Your task to perform on an android device: Check the weather Image 0: 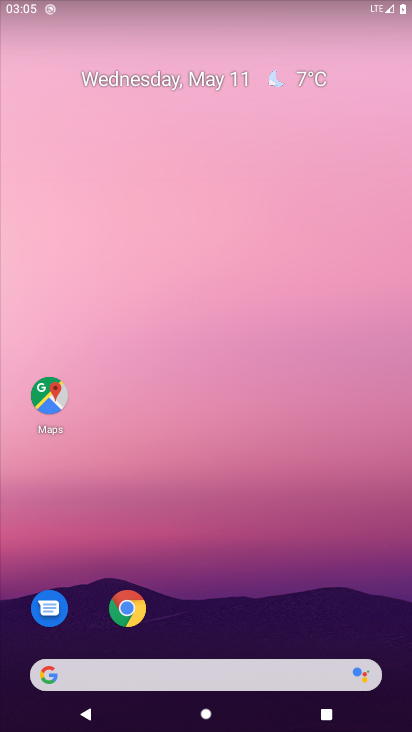
Step 0: press home button
Your task to perform on an android device: Check the weather Image 1: 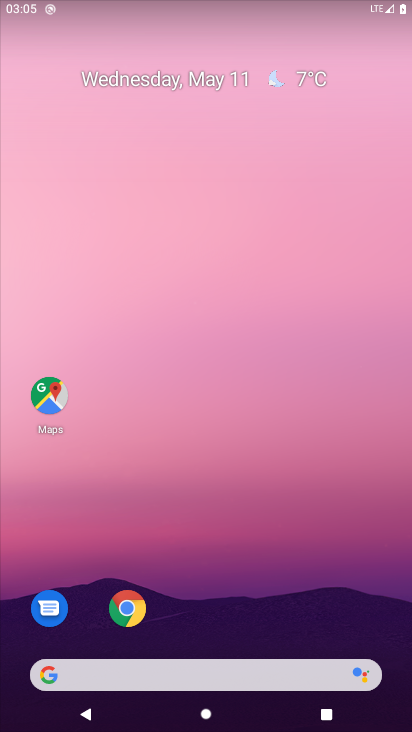
Step 1: click (312, 81)
Your task to perform on an android device: Check the weather Image 2: 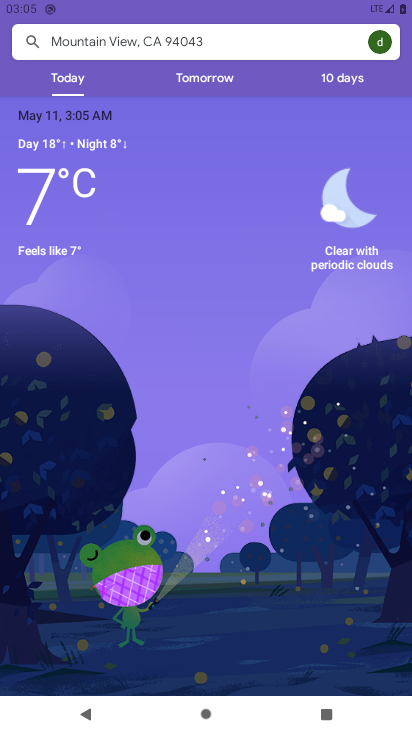
Step 2: task complete